Your task to perform on an android device: Turn off the flashlight Image 0: 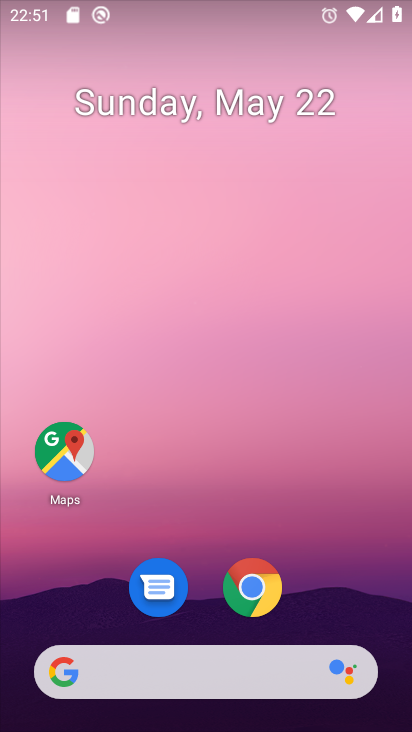
Step 0: drag from (253, 473) to (291, 31)
Your task to perform on an android device: Turn off the flashlight Image 1: 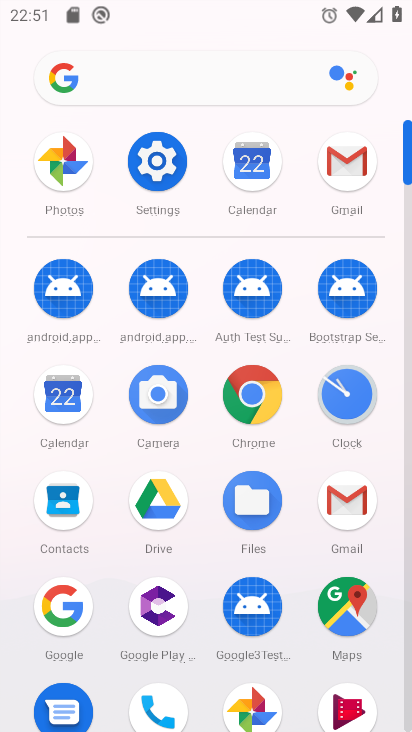
Step 1: click (169, 155)
Your task to perform on an android device: Turn off the flashlight Image 2: 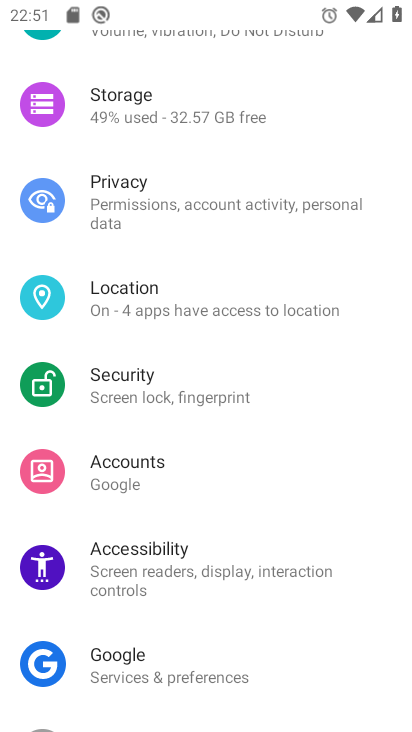
Step 2: drag from (175, 145) to (214, 657)
Your task to perform on an android device: Turn off the flashlight Image 3: 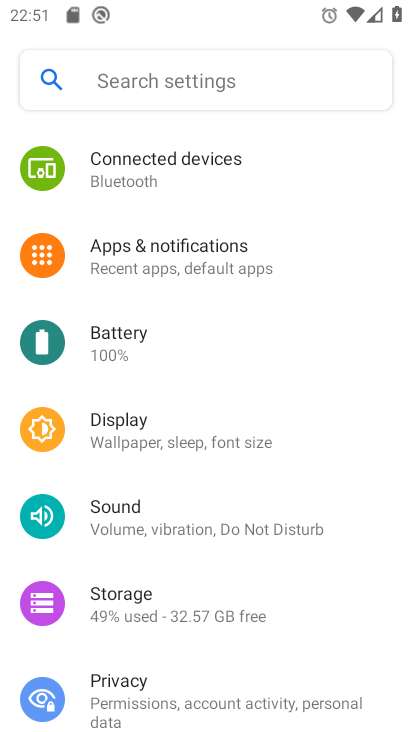
Step 3: drag from (216, 200) to (264, 715)
Your task to perform on an android device: Turn off the flashlight Image 4: 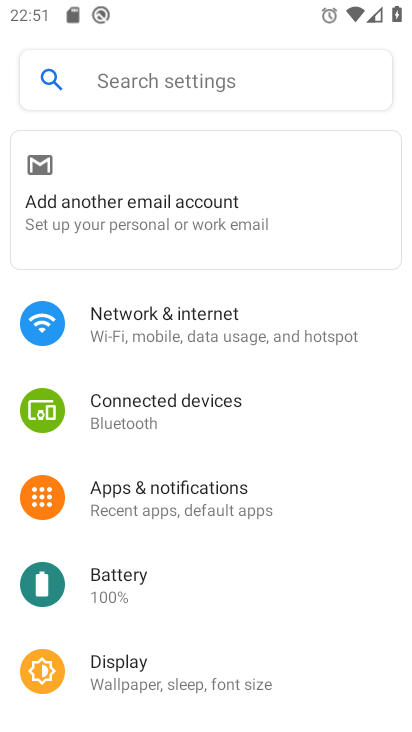
Step 4: click (216, 68)
Your task to perform on an android device: Turn off the flashlight Image 5: 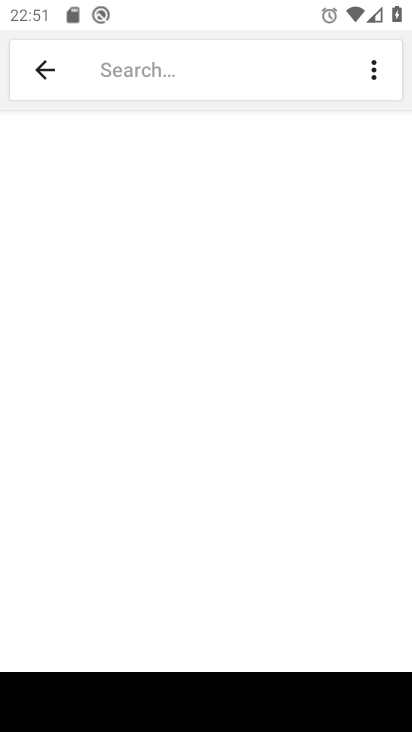
Step 5: type "Flashlight"
Your task to perform on an android device: Turn off the flashlight Image 6: 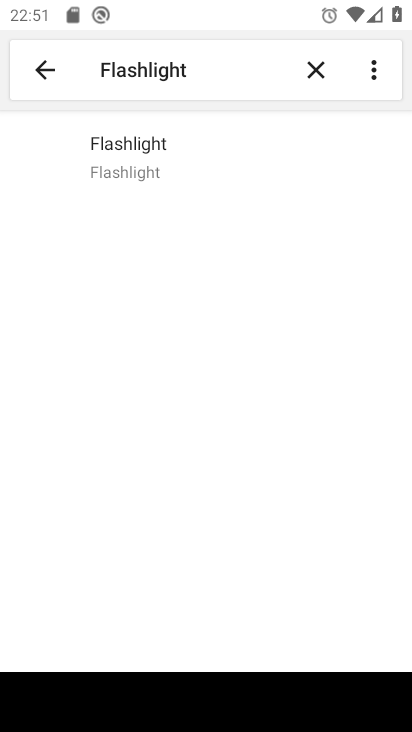
Step 6: click (132, 142)
Your task to perform on an android device: Turn off the flashlight Image 7: 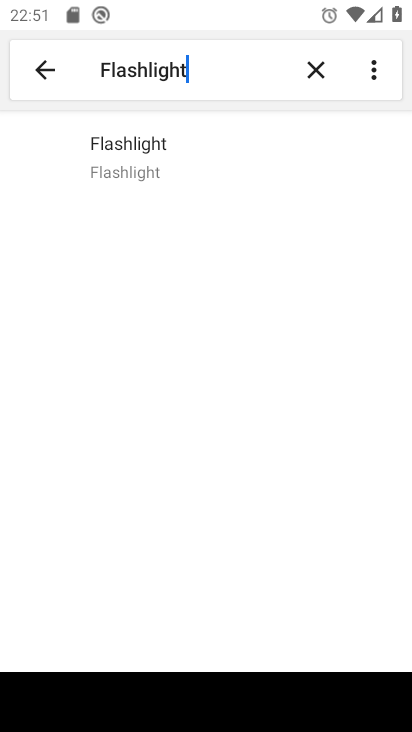
Step 7: click (132, 144)
Your task to perform on an android device: Turn off the flashlight Image 8: 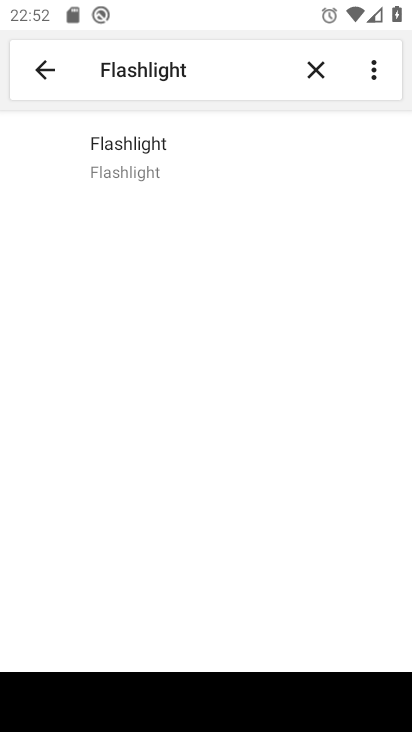
Step 8: task complete